Your task to perform on an android device: When is my next meeting? Image 0: 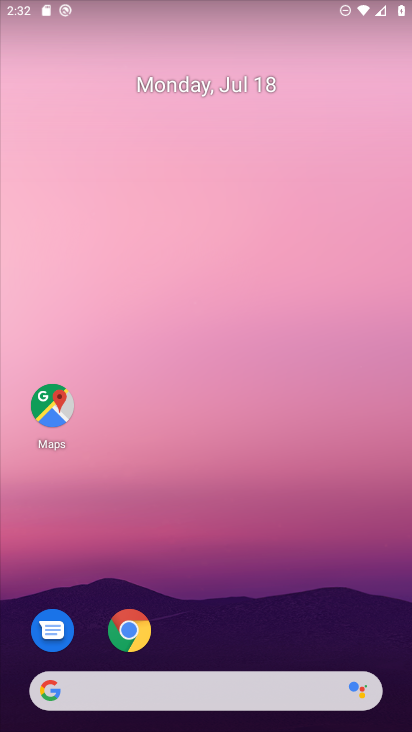
Step 0: drag from (269, 629) to (214, 54)
Your task to perform on an android device: When is my next meeting? Image 1: 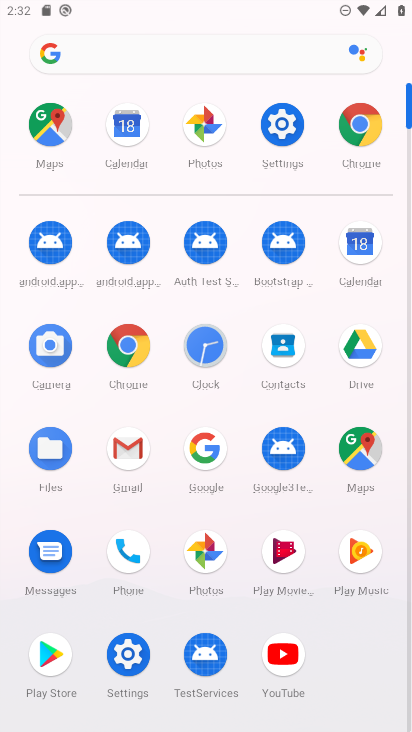
Step 1: click (370, 249)
Your task to perform on an android device: When is my next meeting? Image 2: 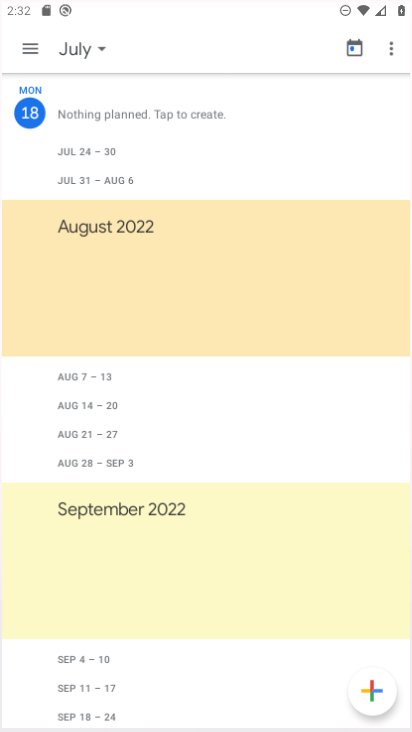
Step 2: click (357, 243)
Your task to perform on an android device: When is my next meeting? Image 3: 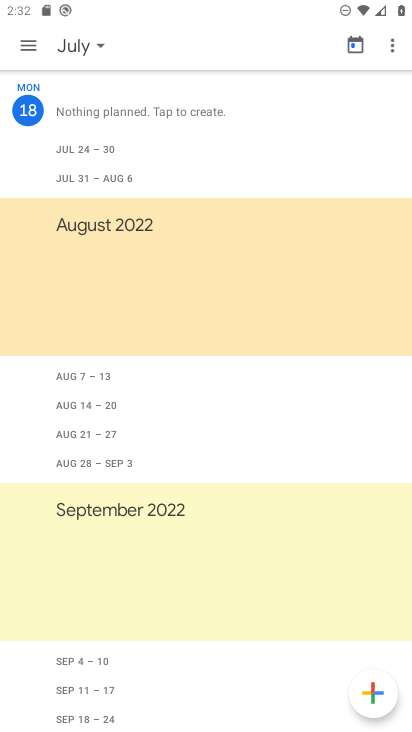
Step 3: click (23, 42)
Your task to perform on an android device: When is my next meeting? Image 4: 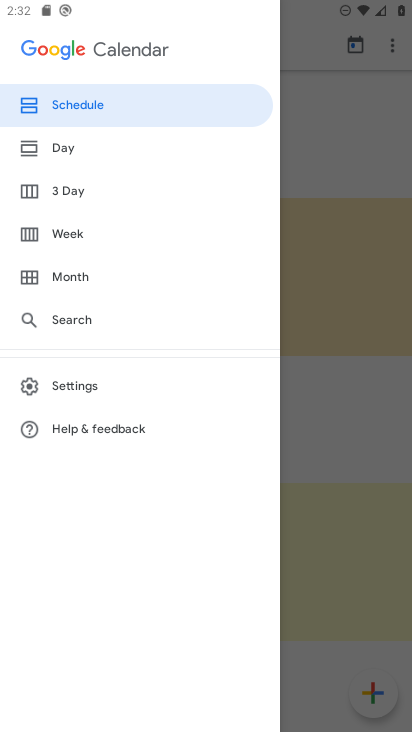
Step 4: click (109, 115)
Your task to perform on an android device: When is my next meeting? Image 5: 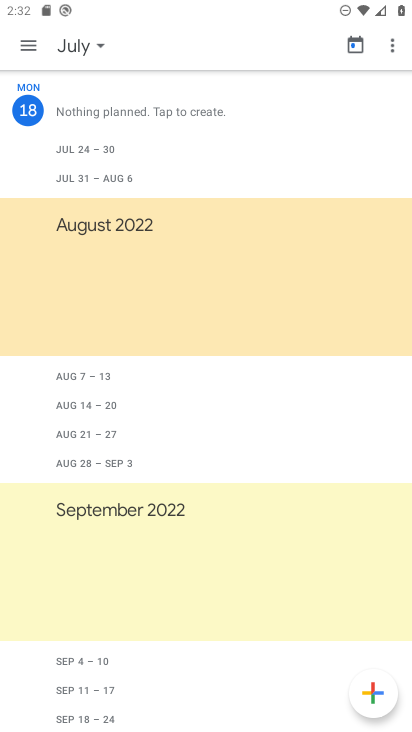
Step 5: task complete